Your task to perform on an android device: Open internet settings Image 0: 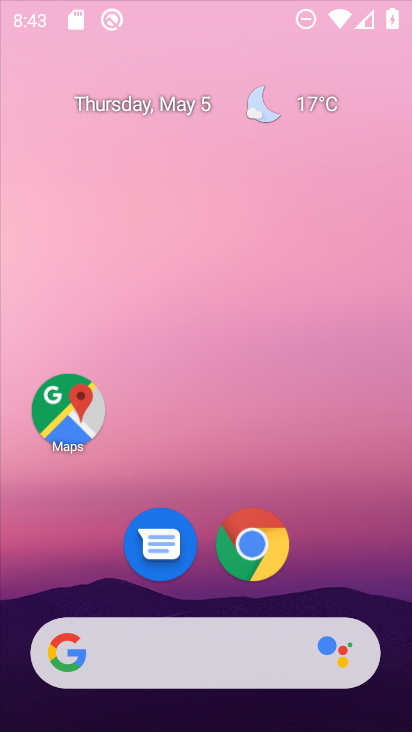
Step 0: click (233, 119)
Your task to perform on an android device: Open internet settings Image 1: 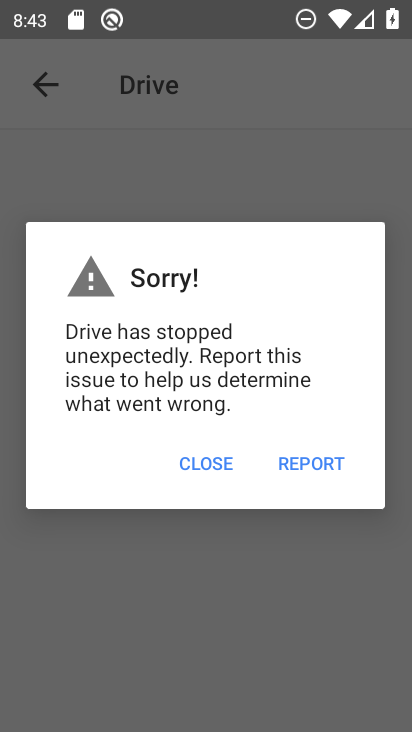
Step 1: press home button
Your task to perform on an android device: Open internet settings Image 2: 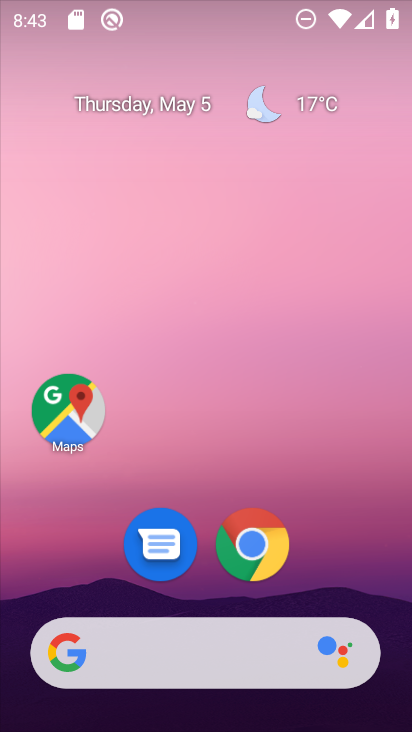
Step 2: drag from (377, 627) to (296, 32)
Your task to perform on an android device: Open internet settings Image 3: 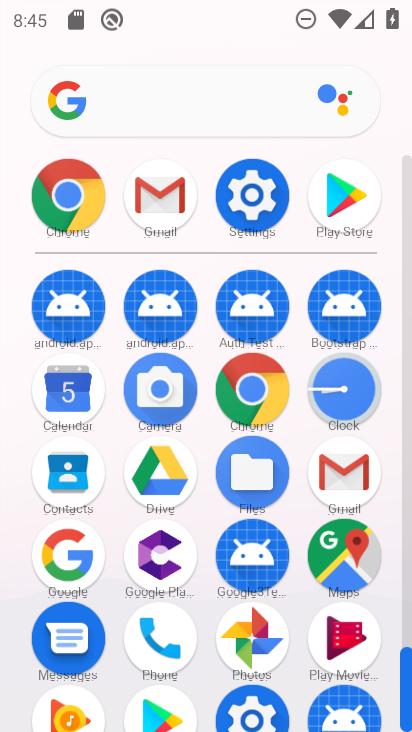
Step 3: click (253, 190)
Your task to perform on an android device: Open internet settings Image 4: 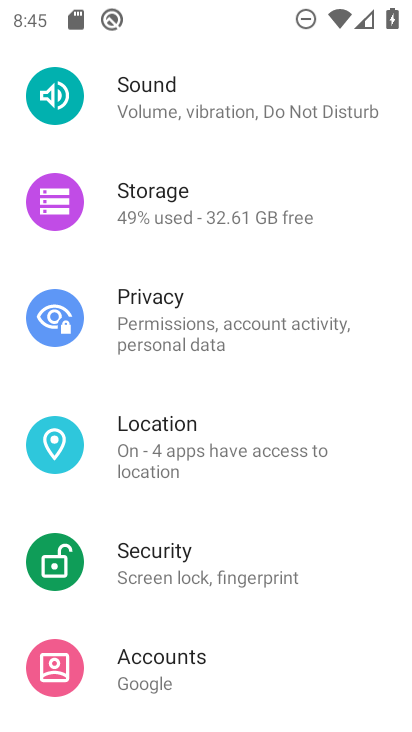
Step 4: drag from (261, 108) to (252, 607)
Your task to perform on an android device: Open internet settings Image 5: 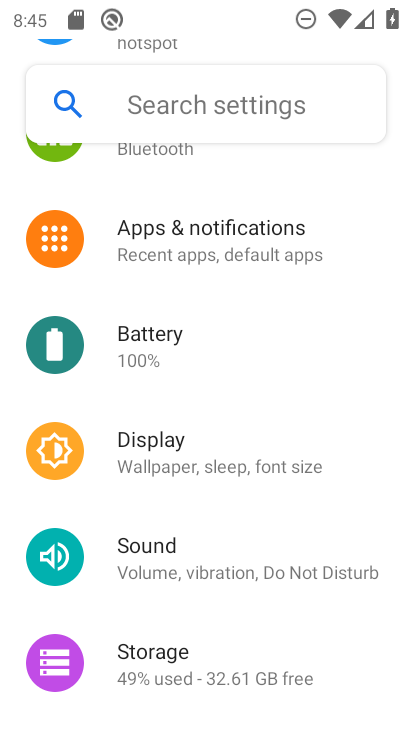
Step 5: drag from (187, 191) to (212, 621)
Your task to perform on an android device: Open internet settings Image 6: 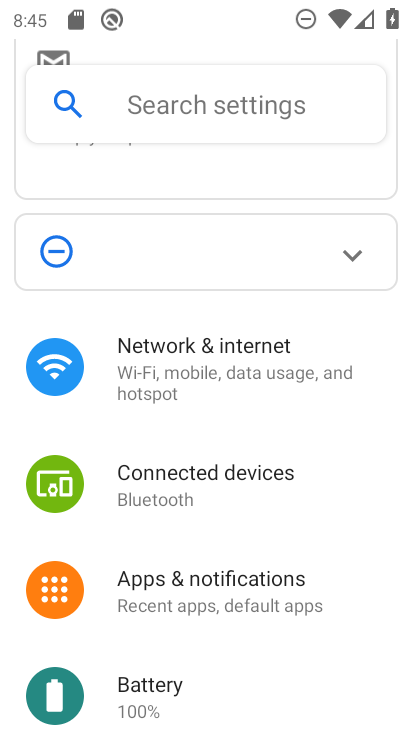
Step 6: click (197, 377)
Your task to perform on an android device: Open internet settings Image 7: 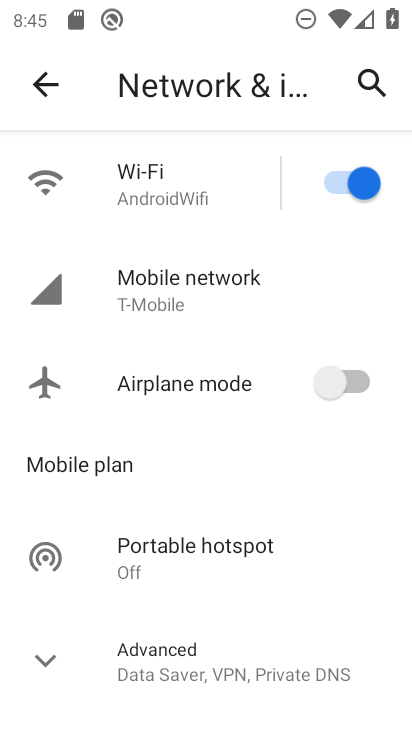
Step 7: task complete